Your task to perform on an android device: open chrome and create a bookmark for the current page Image 0: 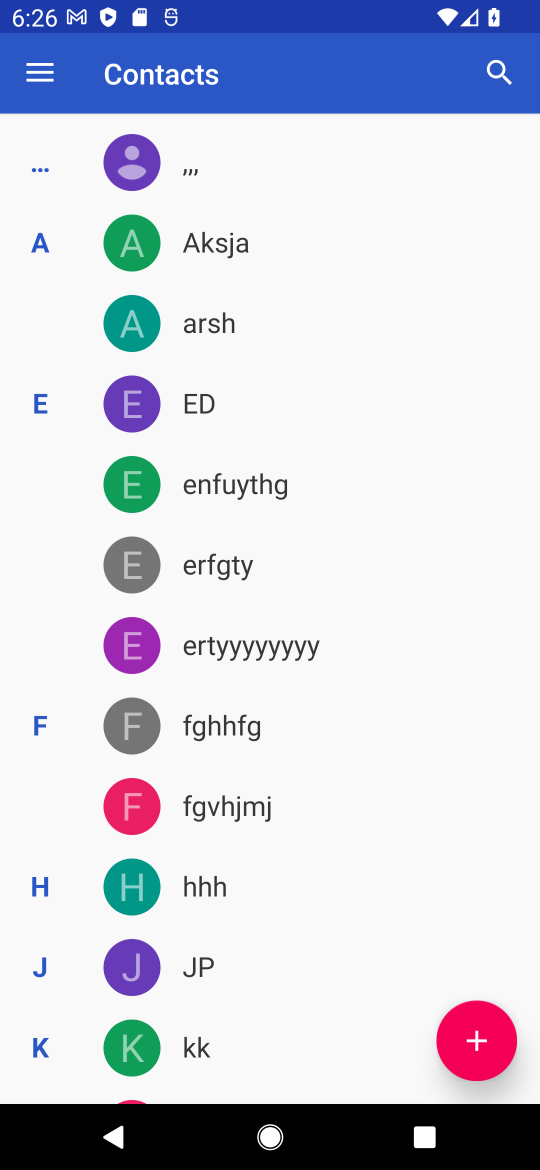
Step 0: press home button
Your task to perform on an android device: open chrome and create a bookmark for the current page Image 1: 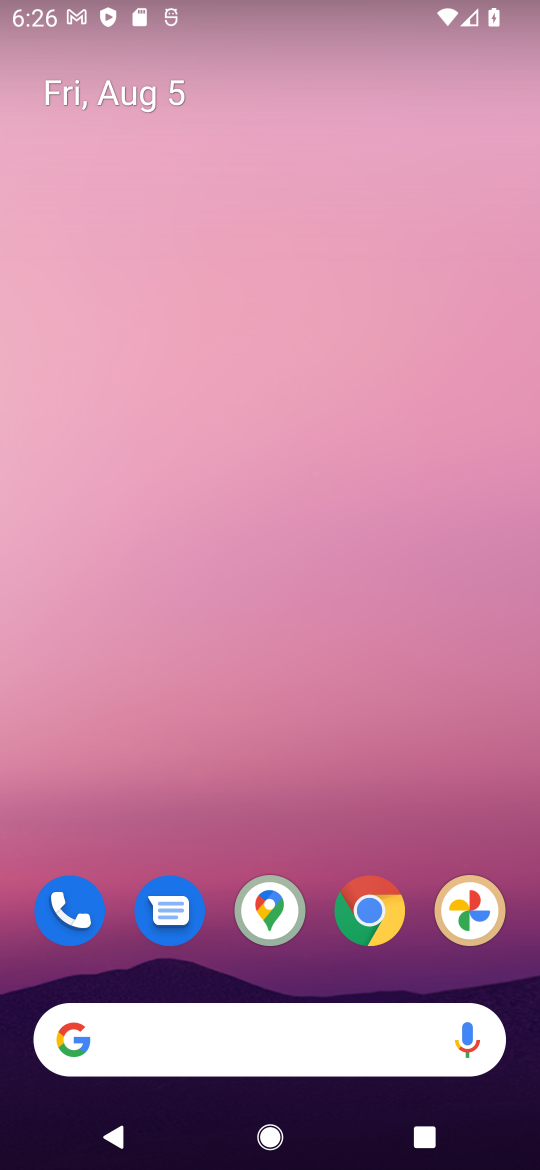
Step 1: drag from (240, 1012) to (248, 36)
Your task to perform on an android device: open chrome and create a bookmark for the current page Image 2: 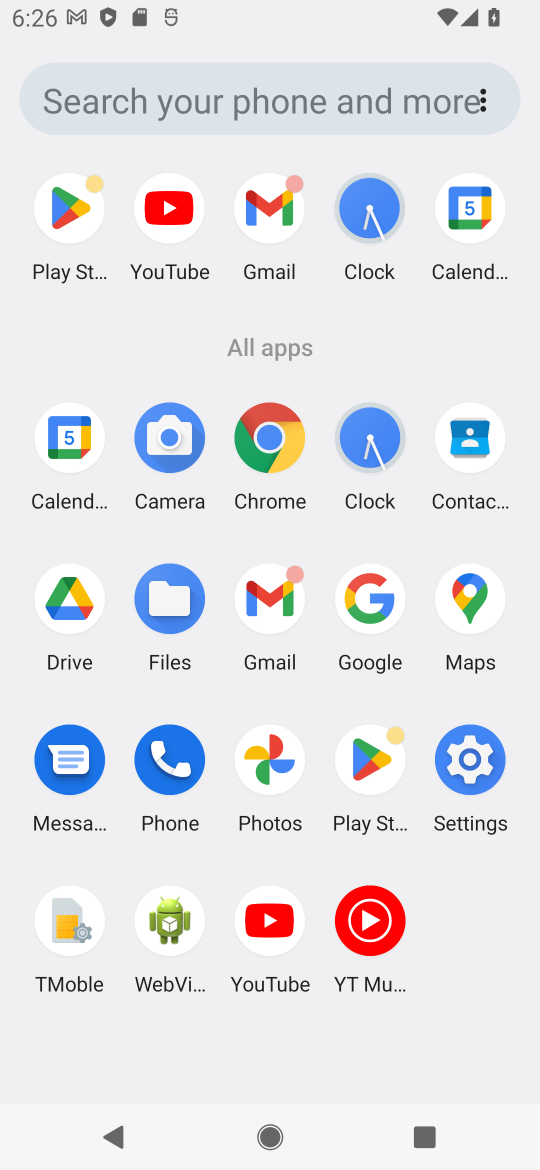
Step 2: click (273, 438)
Your task to perform on an android device: open chrome and create a bookmark for the current page Image 3: 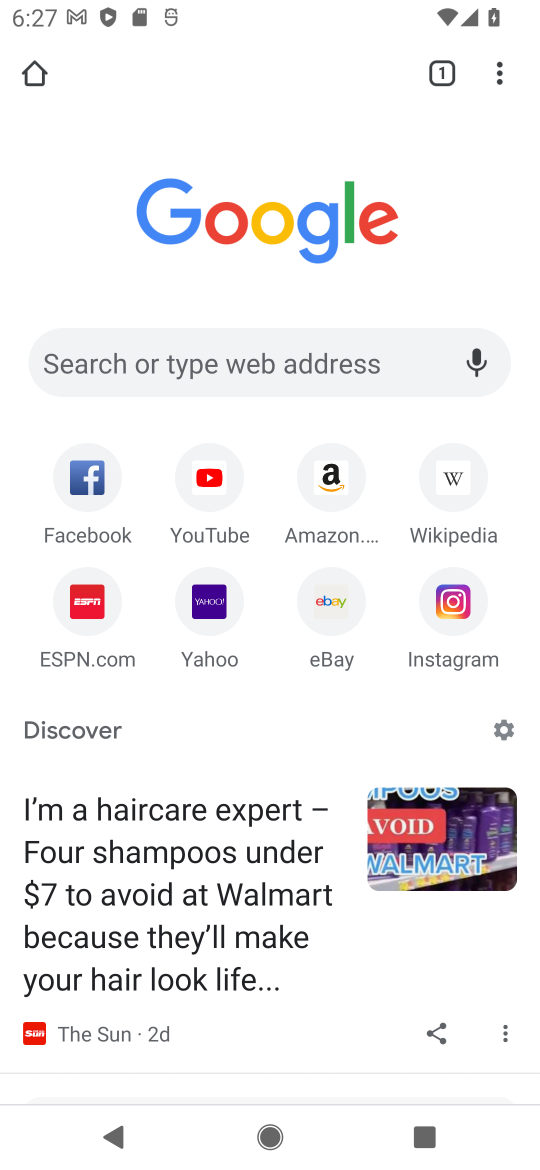
Step 3: click (503, 70)
Your task to perform on an android device: open chrome and create a bookmark for the current page Image 4: 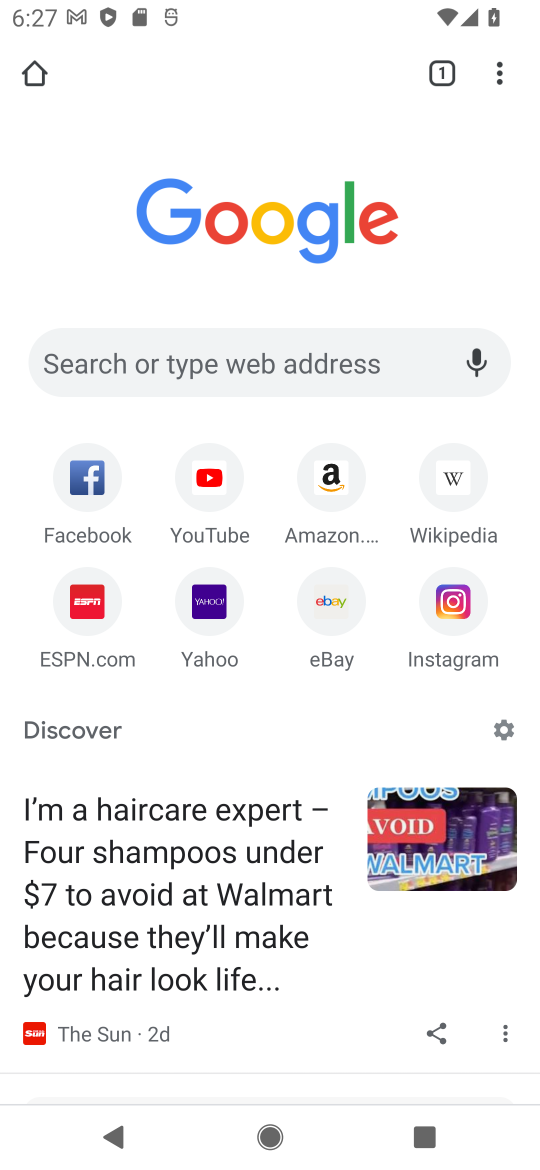
Step 4: drag from (492, 70) to (315, 434)
Your task to perform on an android device: open chrome and create a bookmark for the current page Image 5: 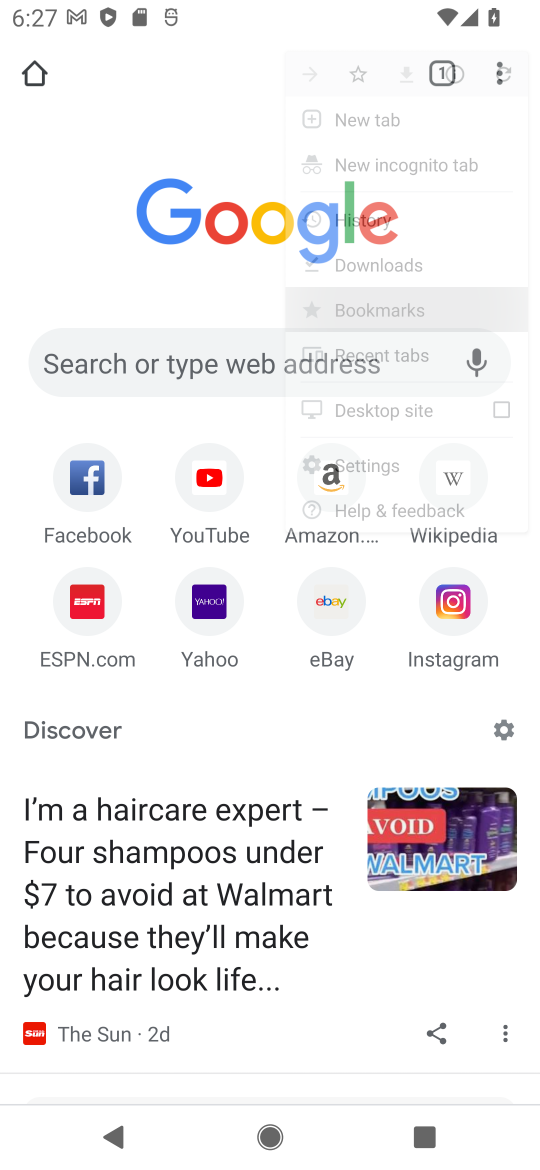
Step 5: click (315, 434)
Your task to perform on an android device: open chrome and create a bookmark for the current page Image 6: 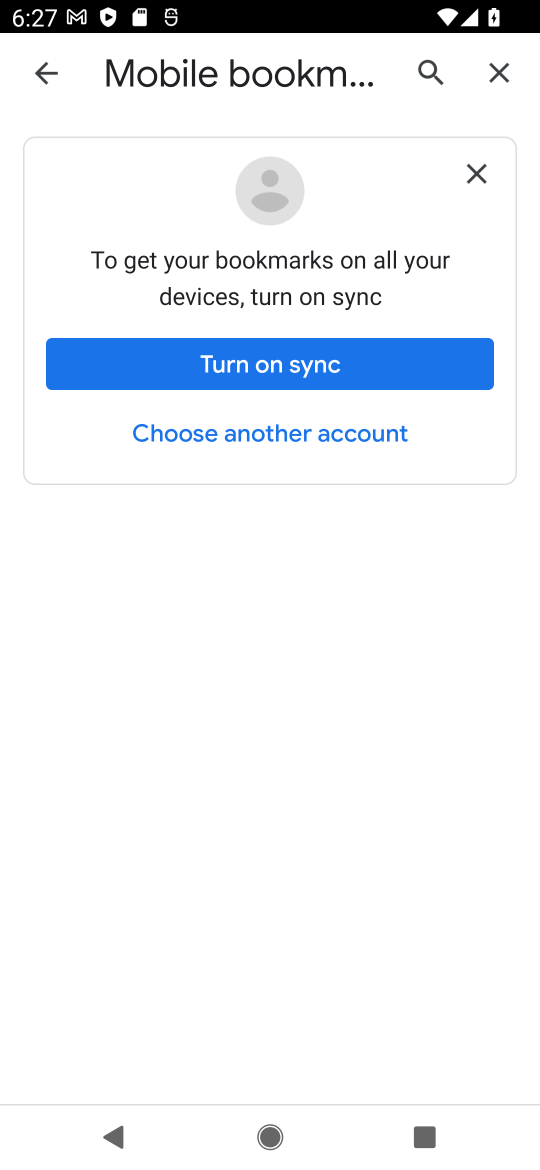
Step 6: press back button
Your task to perform on an android device: open chrome and create a bookmark for the current page Image 7: 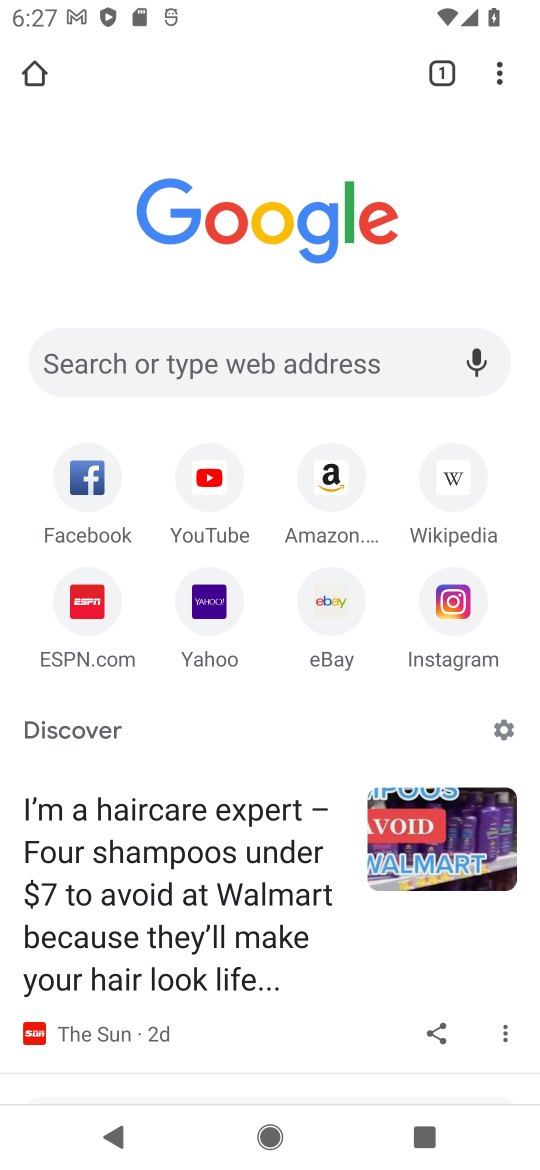
Step 7: click (496, 80)
Your task to perform on an android device: open chrome and create a bookmark for the current page Image 8: 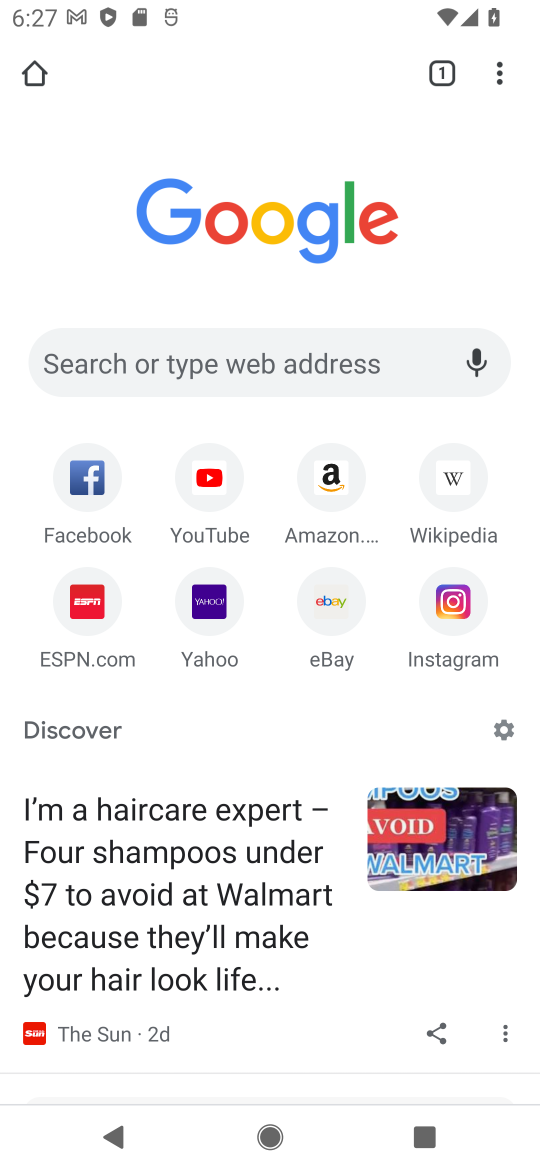
Step 8: click (488, 57)
Your task to perform on an android device: open chrome and create a bookmark for the current page Image 9: 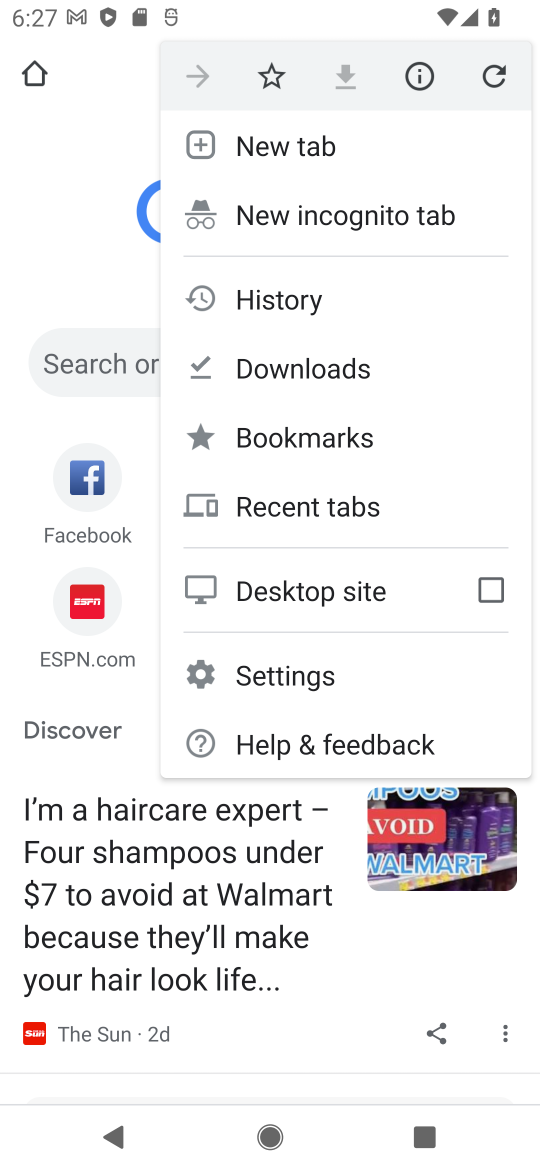
Step 9: click (276, 64)
Your task to perform on an android device: open chrome and create a bookmark for the current page Image 10: 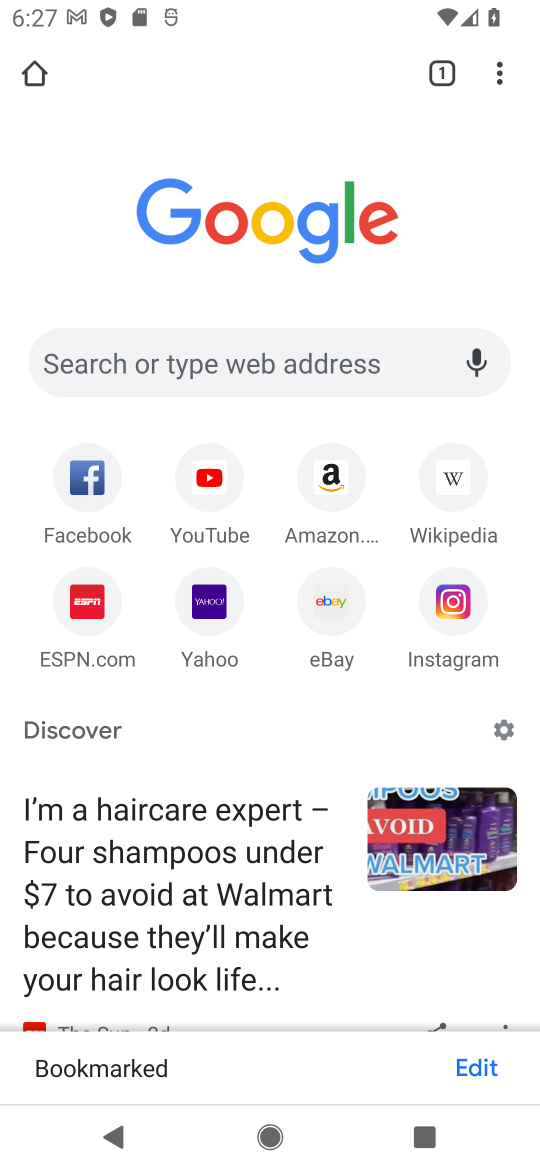
Step 10: task complete